Your task to perform on an android device: toggle wifi Image 0: 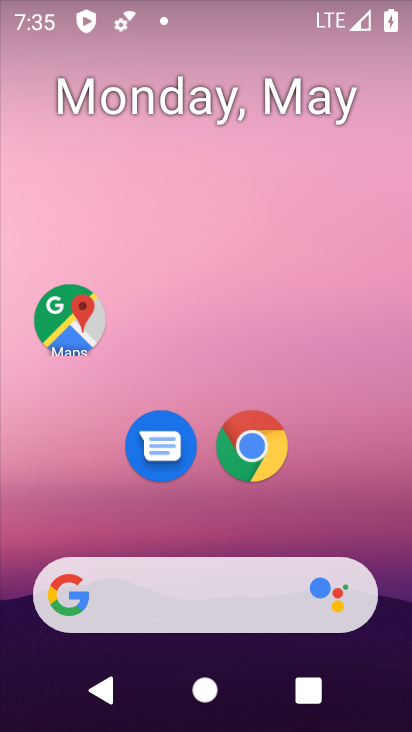
Step 0: drag from (365, 542) to (319, 2)
Your task to perform on an android device: toggle wifi Image 1: 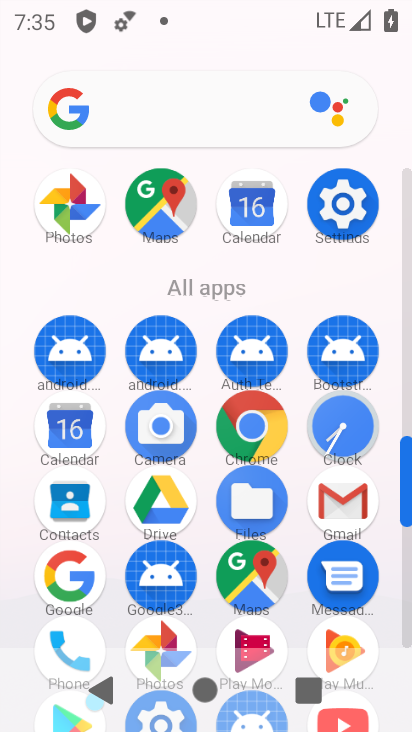
Step 1: click (345, 203)
Your task to perform on an android device: toggle wifi Image 2: 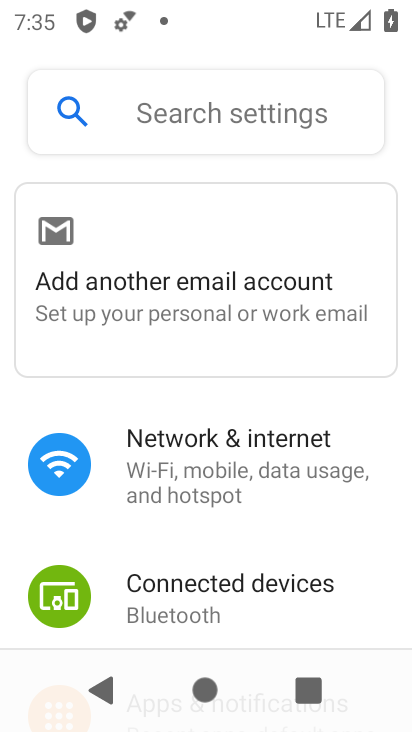
Step 2: click (222, 449)
Your task to perform on an android device: toggle wifi Image 3: 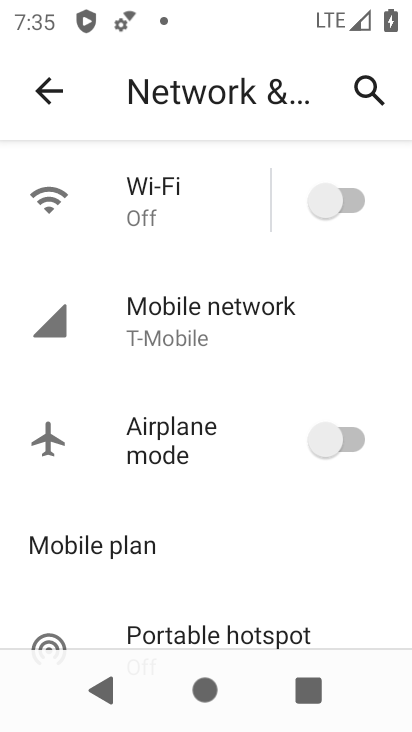
Step 3: click (328, 203)
Your task to perform on an android device: toggle wifi Image 4: 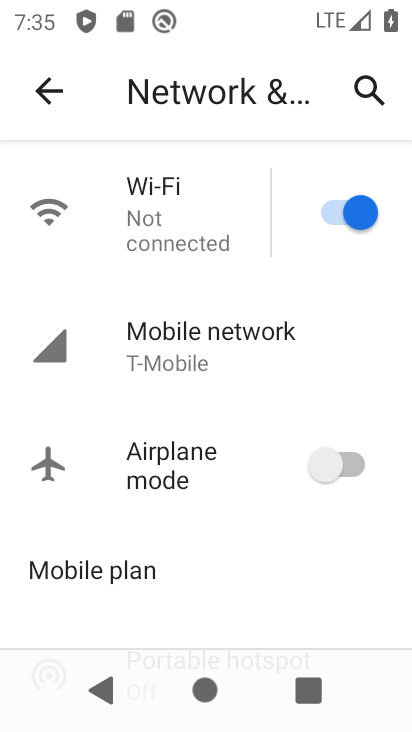
Step 4: task complete